Your task to perform on an android device: open a new tab in the chrome app Image 0: 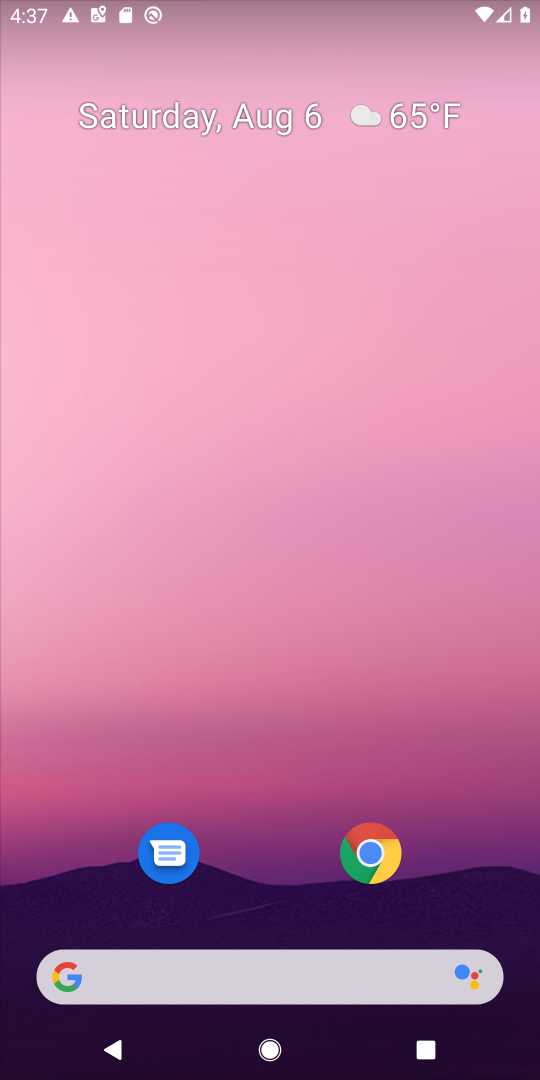
Step 0: click (383, 856)
Your task to perform on an android device: open a new tab in the chrome app Image 1: 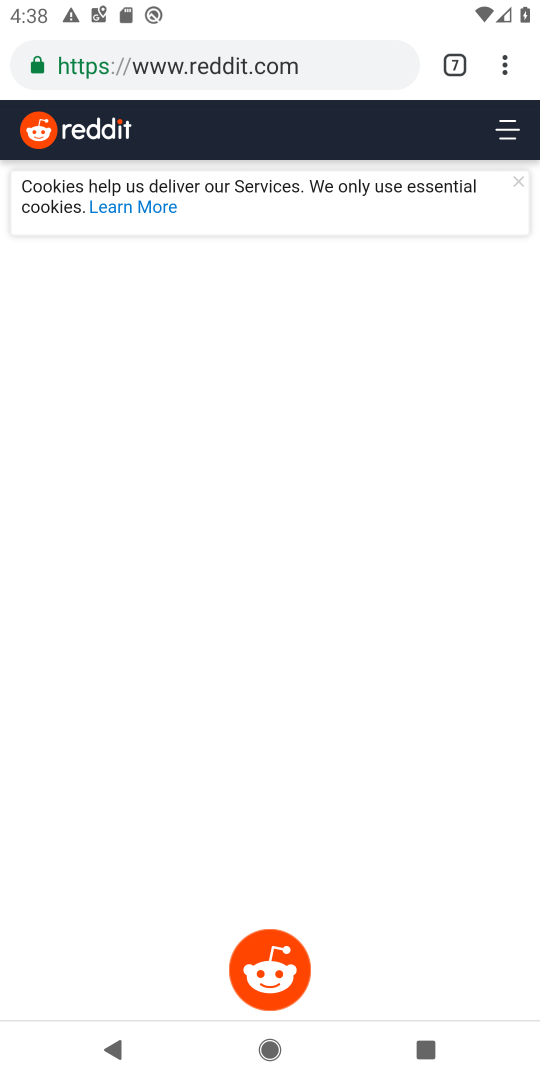
Step 1: click (451, 65)
Your task to perform on an android device: open a new tab in the chrome app Image 2: 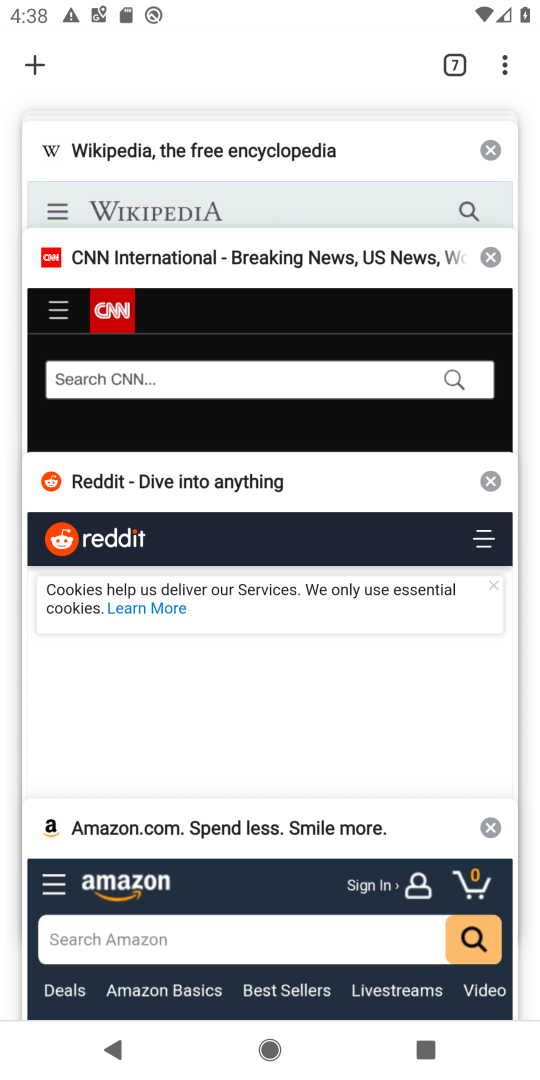
Step 2: click (35, 52)
Your task to perform on an android device: open a new tab in the chrome app Image 3: 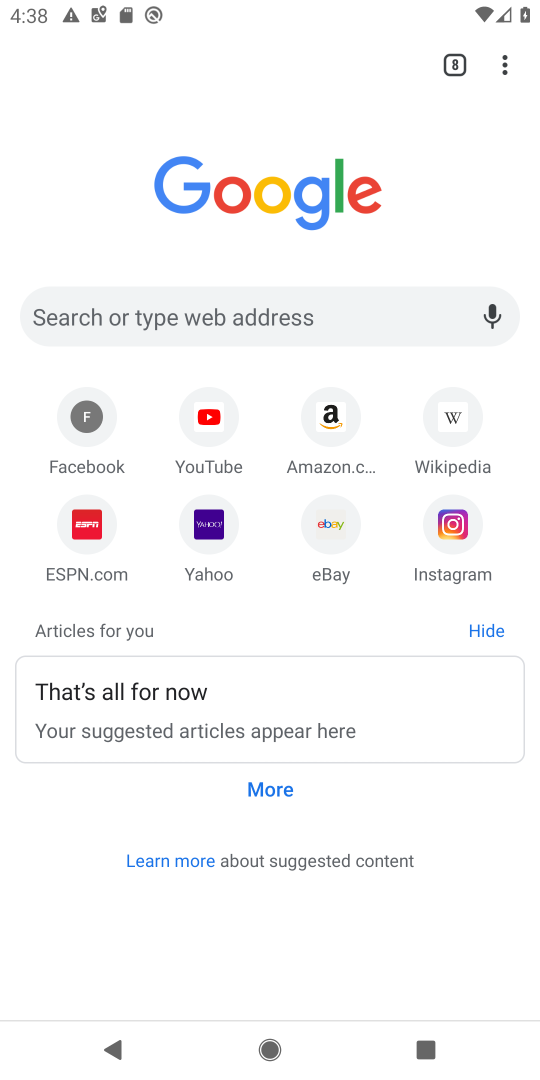
Step 3: task complete